Your task to perform on an android device: open app "DoorDash - Dasher" (install if not already installed) and enter user name: "resistor@inbox.com" and password: "cholera" Image 0: 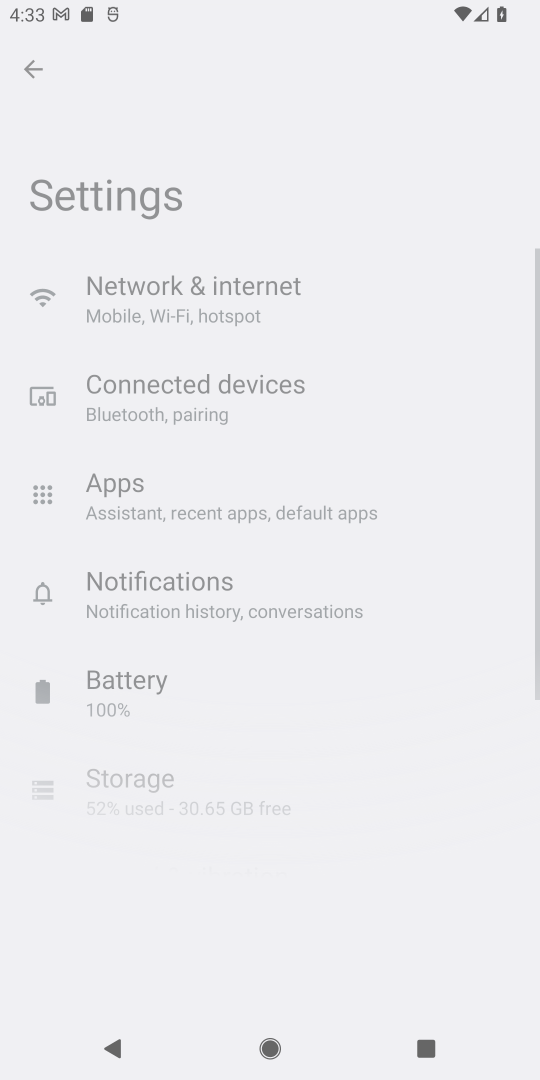
Step 0: press home button
Your task to perform on an android device: open app "DoorDash - Dasher" (install if not already installed) and enter user name: "resistor@inbox.com" and password: "cholera" Image 1: 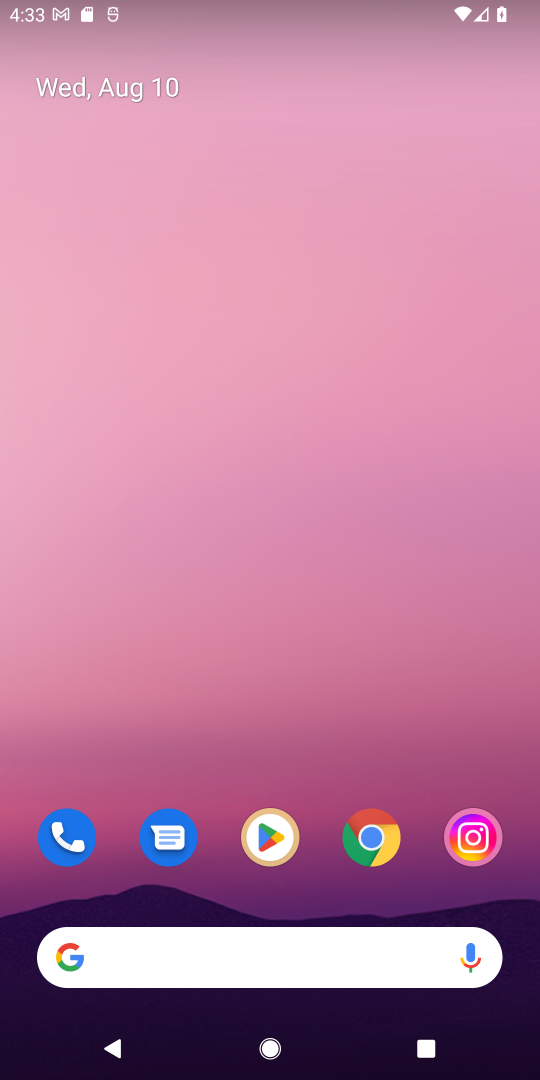
Step 1: click (278, 842)
Your task to perform on an android device: open app "DoorDash - Dasher" (install if not already installed) and enter user name: "resistor@inbox.com" and password: "cholera" Image 2: 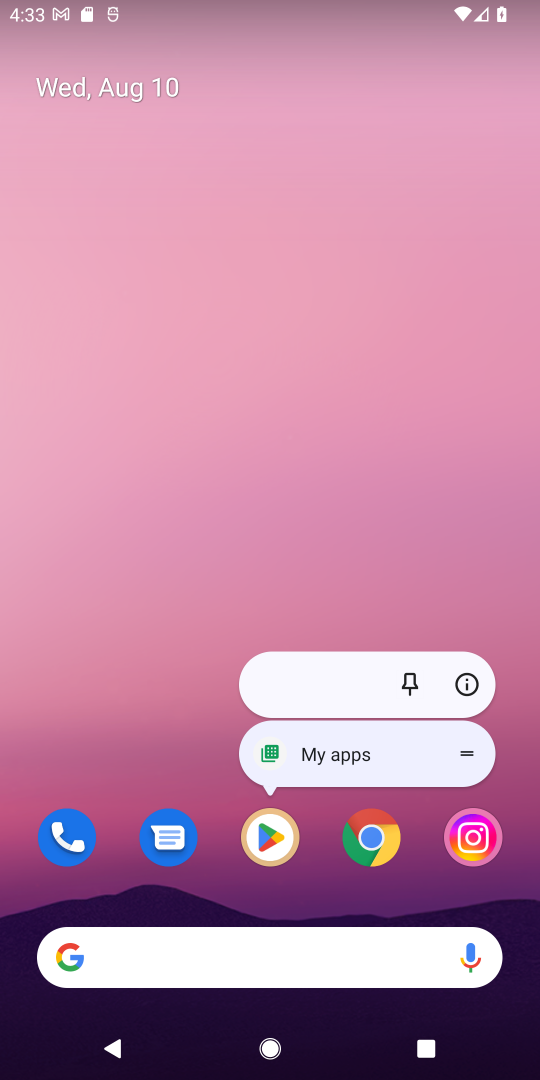
Step 2: click (262, 842)
Your task to perform on an android device: open app "DoorDash - Dasher" (install if not already installed) and enter user name: "resistor@inbox.com" and password: "cholera" Image 3: 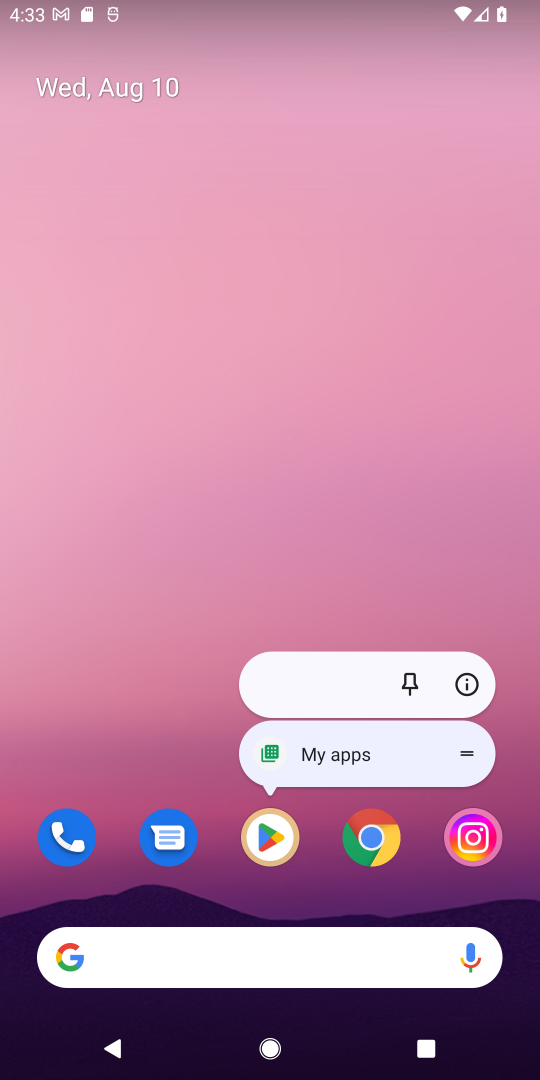
Step 3: click (262, 843)
Your task to perform on an android device: open app "DoorDash - Dasher" (install if not already installed) and enter user name: "resistor@inbox.com" and password: "cholera" Image 4: 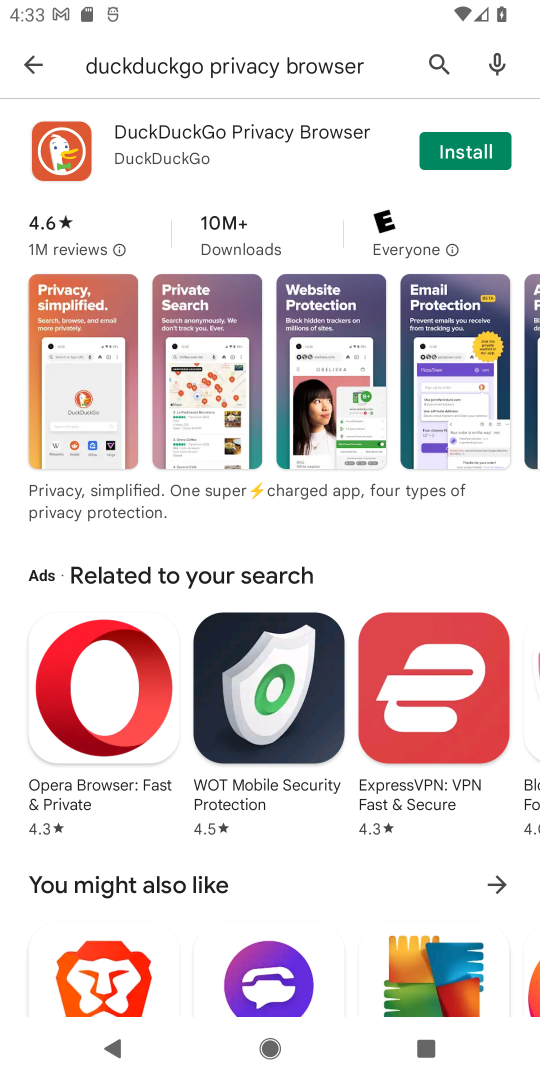
Step 4: click (429, 60)
Your task to perform on an android device: open app "DoorDash - Dasher" (install if not already installed) and enter user name: "resistor@inbox.com" and password: "cholera" Image 5: 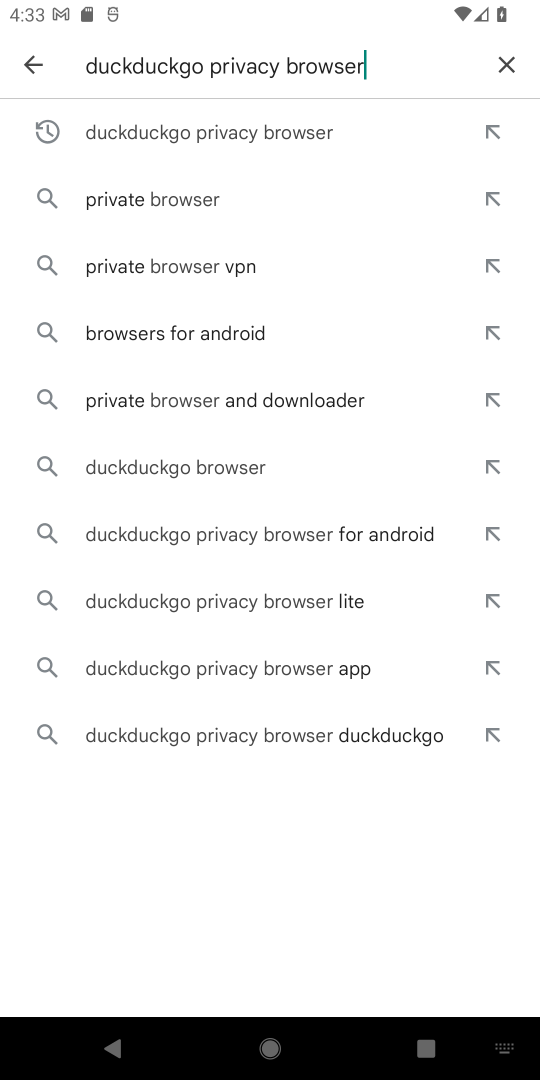
Step 5: click (502, 60)
Your task to perform on an android device: open app "DoorDash - Dasher" (install if not already installed) and enter user name: "resistor@inbox.com" and password: "cholera" Image 6: 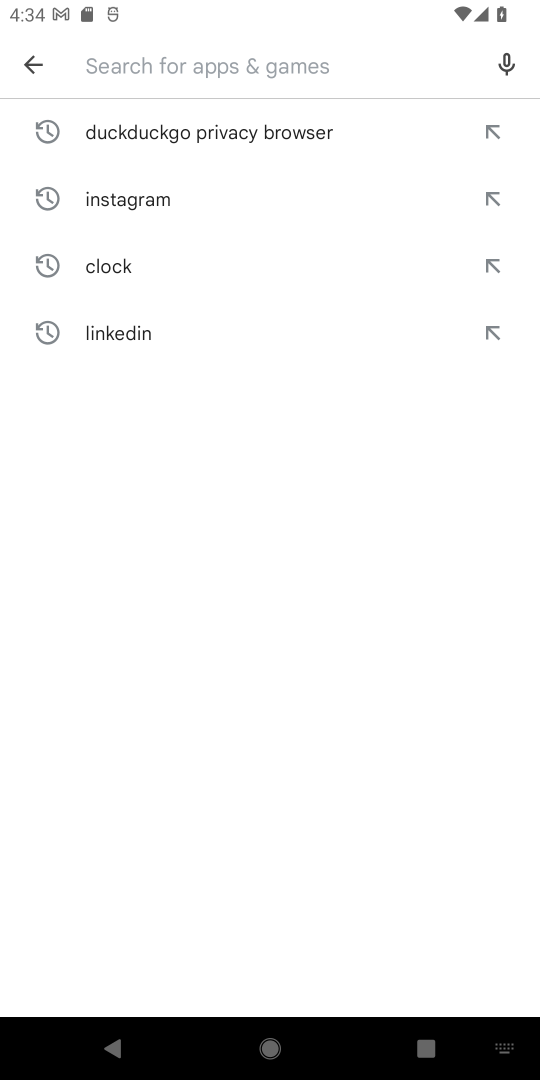
Step 6: type "DoorDash - Dasher"
Your task to perform on an android device: open app "DoorDash - Dasher" (install if not already installed) and enter user name: "resistor@inbox.com" and password: "cholera" Image 7: 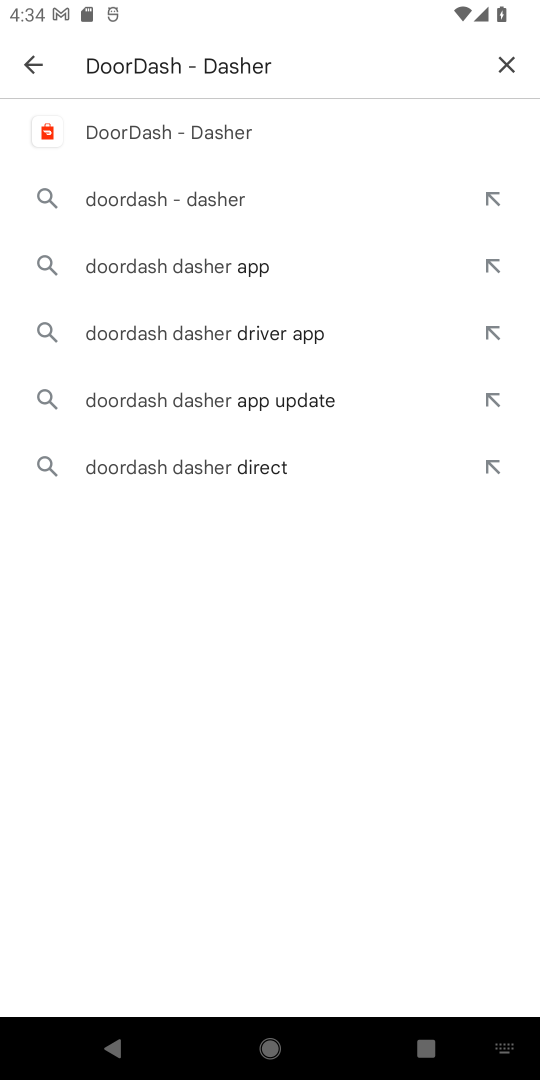
Step 7: click (174, 134)
Your task to perform on an android device: open app "DoorDash - Dasher" (install if not already installed) and enter user name: "resistor@inbox.com" and password: "cholera" Image 8: 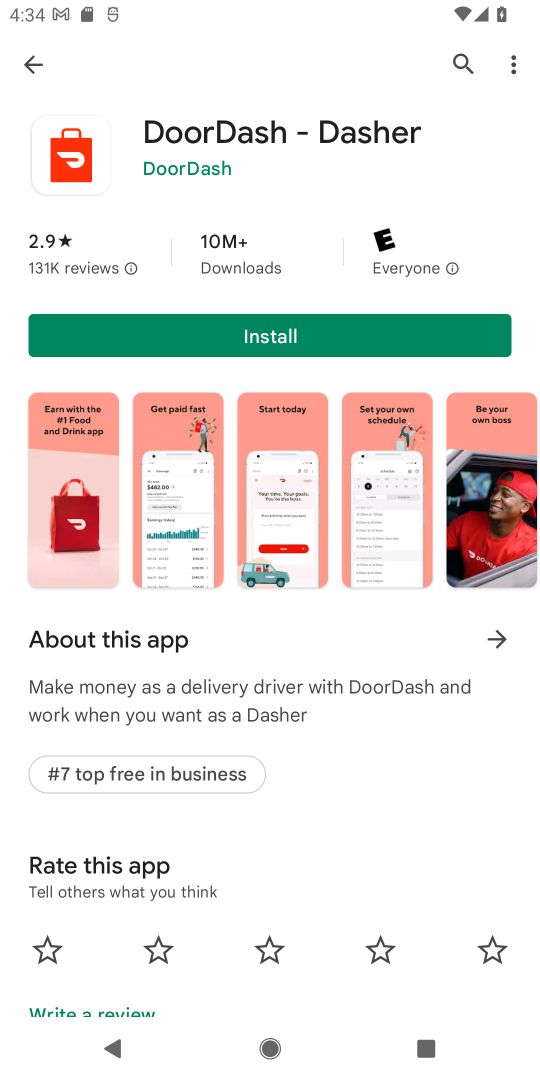
Step 8: click (263, 342)
Your task to perform on an android device: open app "DoorDash - Dasher" (install if not already installed) and enter user name: "resistor@inbox.com" and password: "cholera" Image 9: 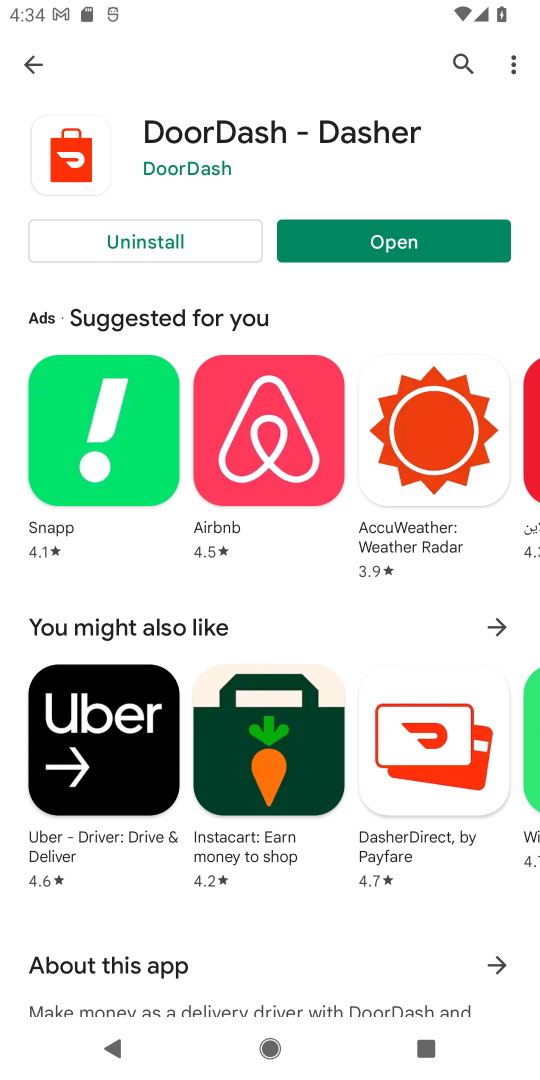
Step 9: click (429, 243)
Your task to perform on an android device: open app "DoorDash - Dasher" (install if not already installed) and enter user name: "resistor@inbox.com" and password: "cholera" Image 10: 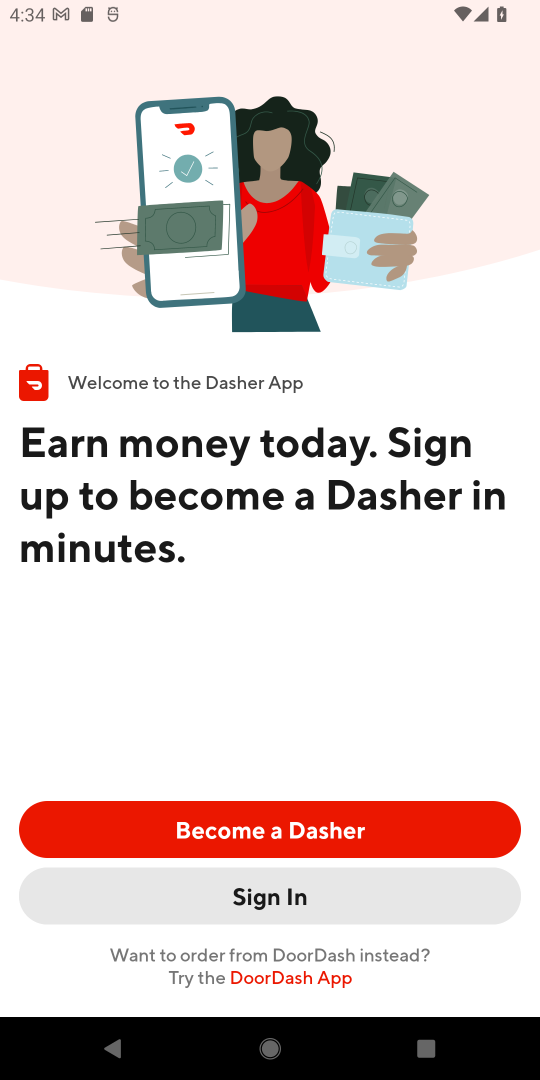
Step 10: click (311, 904)
Your task to perform on an android device: open app "DoorDash - Dasher" (install if not already installed) and enter user name: "resistor@inbox.com" and password: "cholera" Image 11: 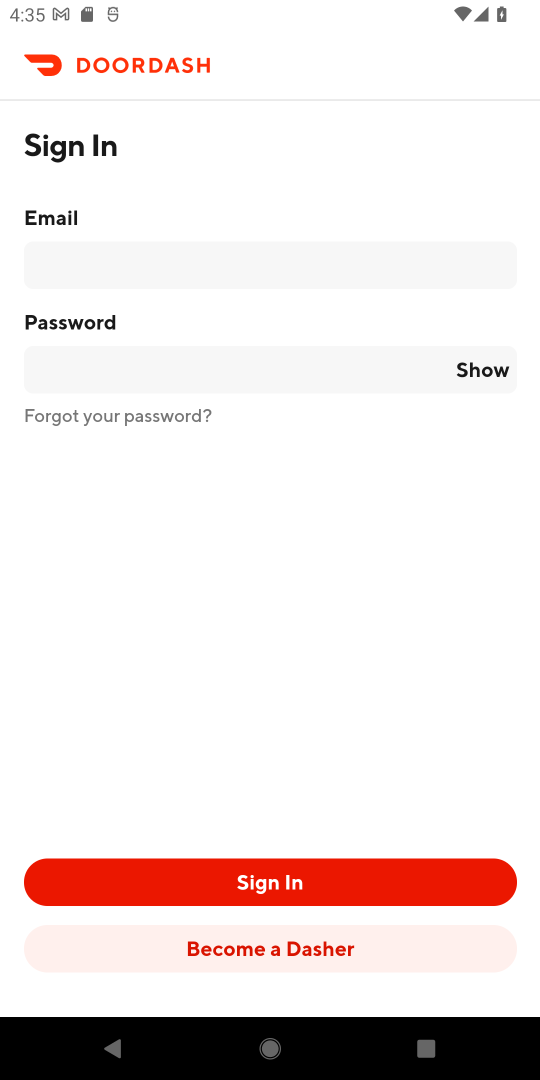
Step 11: click (78, 207)
Your task to perform on an android device: open app "DoorDash - Dasher" (install if not already installed) and enter user name: "resistor@inbox.com" and password: "cholera" Image 12: 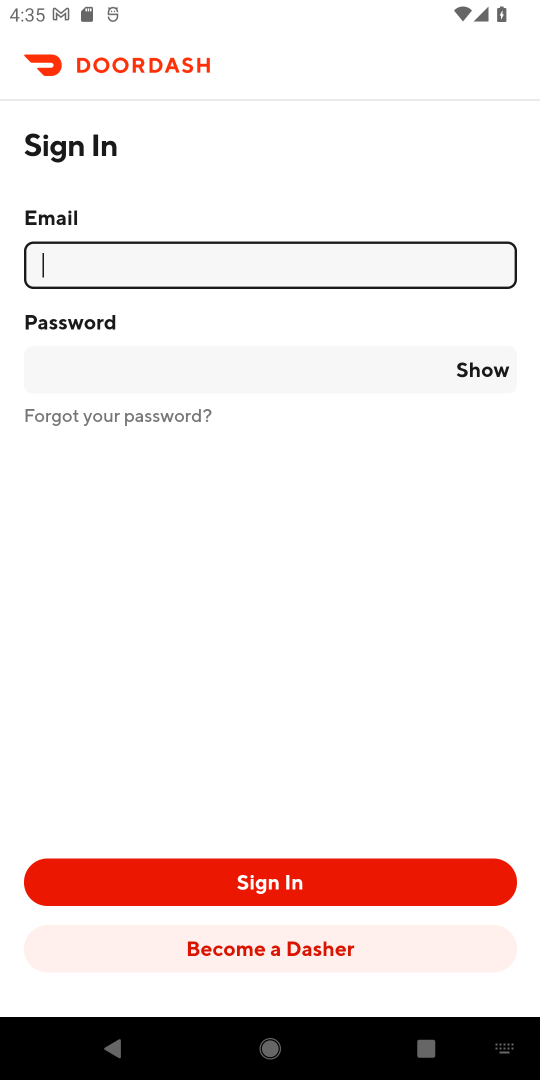
Step 12: type "resistor@inbox.com"
Your task to perform on an android device: open app "DoorDash - Dasher" (install if not already installed) and enter user name: "resistor@inbox.com" and password: "cholera" Image 13: 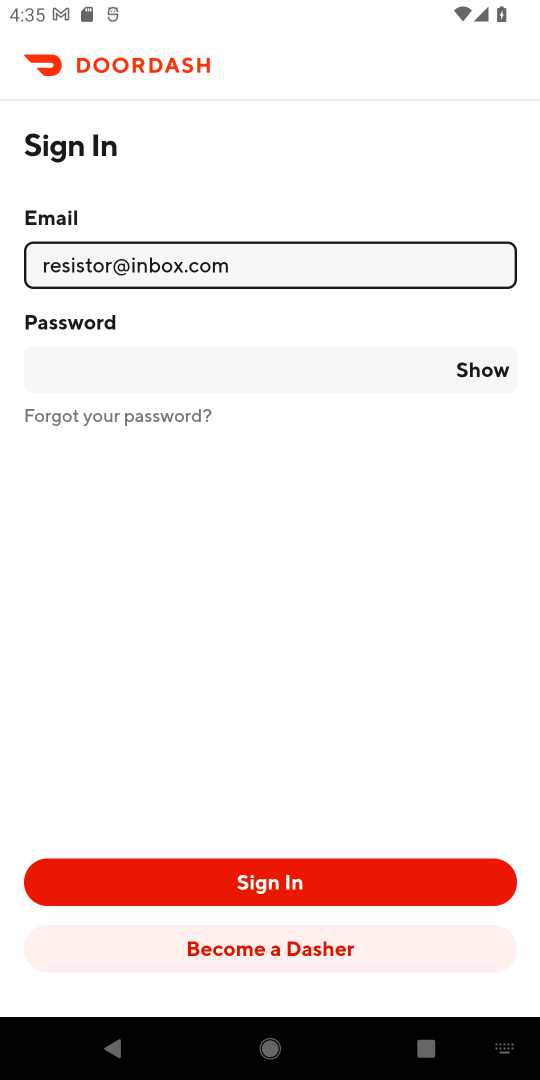
Step 13: click (88, 413)
Your task to perform on an android device: open app "DoorDash - Dasher" (install if not already installed) and enter user name: "resistor@inbox.com" and password: "cholera" Image 14: 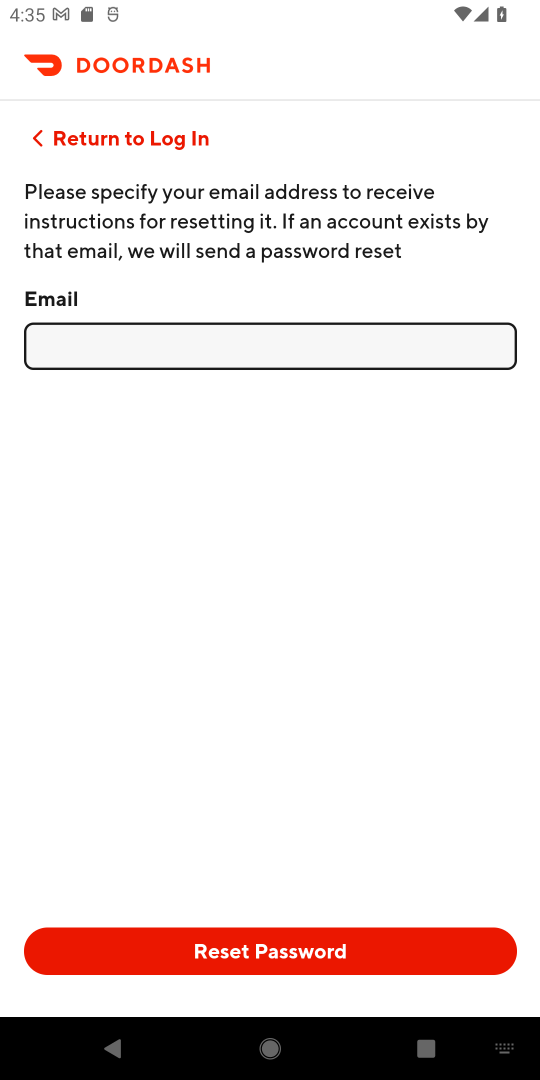
Step 14: click (36, 140)
Your task to perform on an android device: open app "DoorDash - Dasher" (install if not already installed) and enter user name: "resistor@inbox.com" and password: "cholera" Image 15: 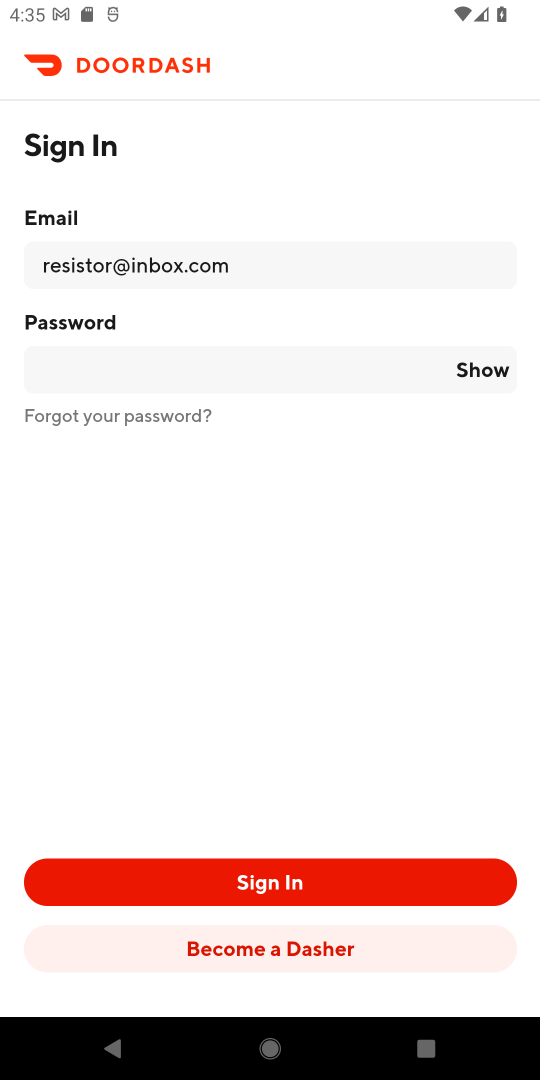
Step 15: click (181, 365)
Your task to perform on an android device: open app "DoorDash - Dasher" (install if not already installed) and enter user name: "resistor@inbox.com" and password: "cholera" Image 16: 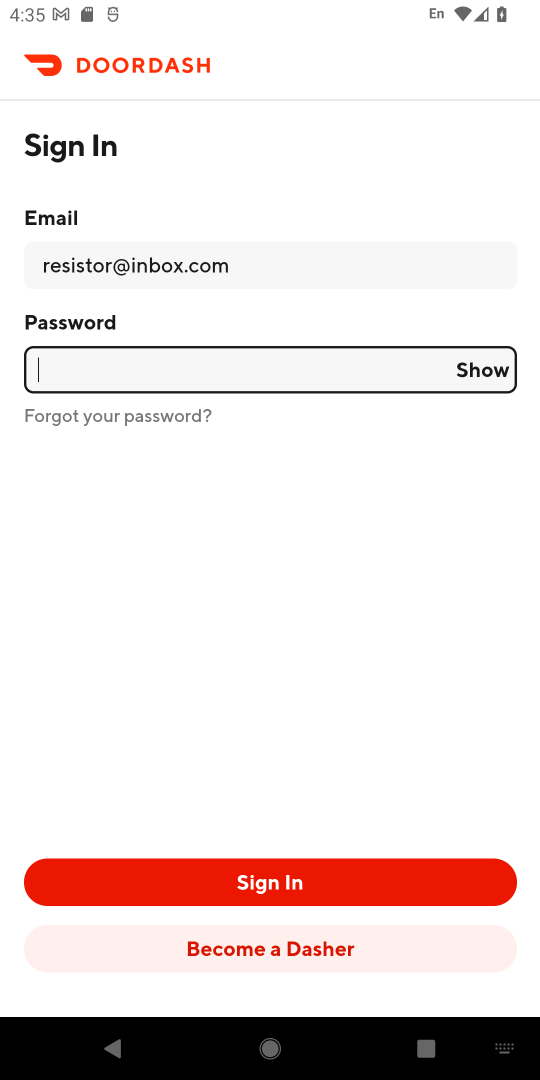
Step 16: type "cholera"
Your task to perform on an android device: open app "DoorDash - Dasher" (install if not already installed) and enter user name: "resistor@inbox.com" and password: "cholera" Image 17: 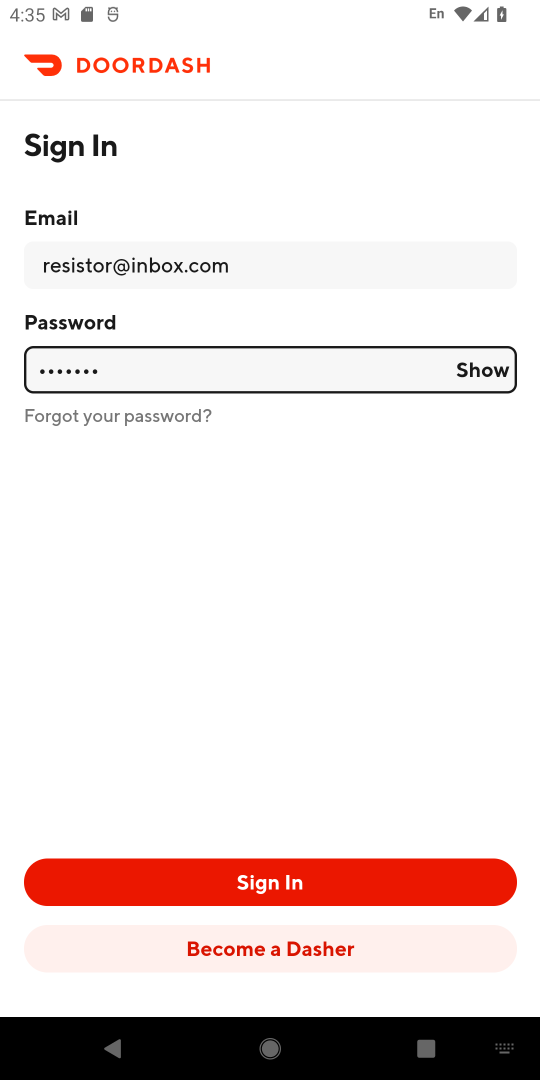
Step 17: task complete